Your task to perform on an android device: check out phone information Image 0: 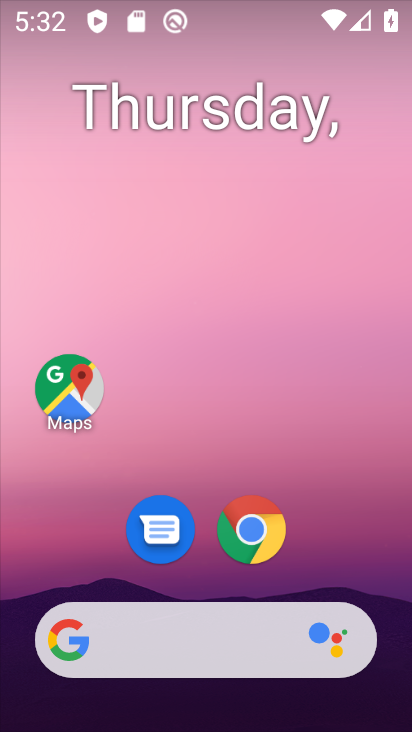
Step 0: drag from (363, 575) to (296, 45)
Your task to perform on an android device: check out phone information Image 1: 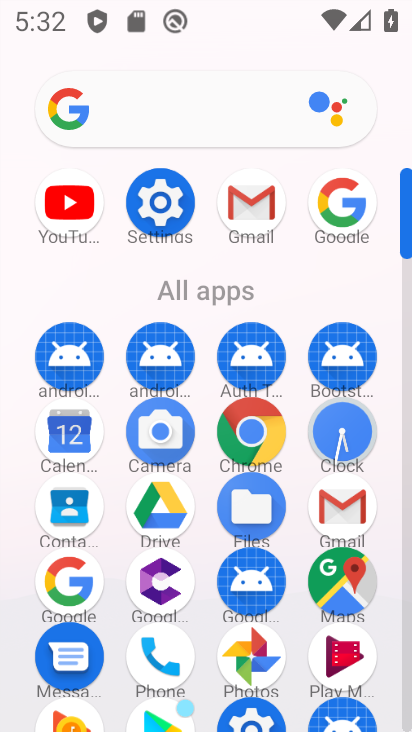
Step 1: click (160, 203)
Your task to perform on an android device: check out phone information Image 2: 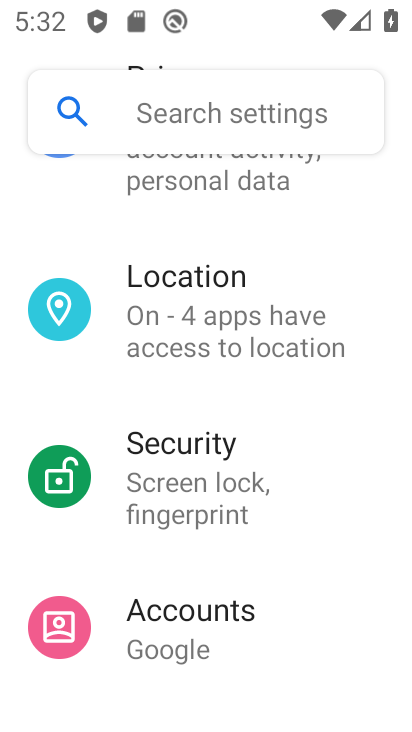
Step 2: drag from (253, 644) to (255, 380)
Your task to perform on an android device: check out phone information Image 3: 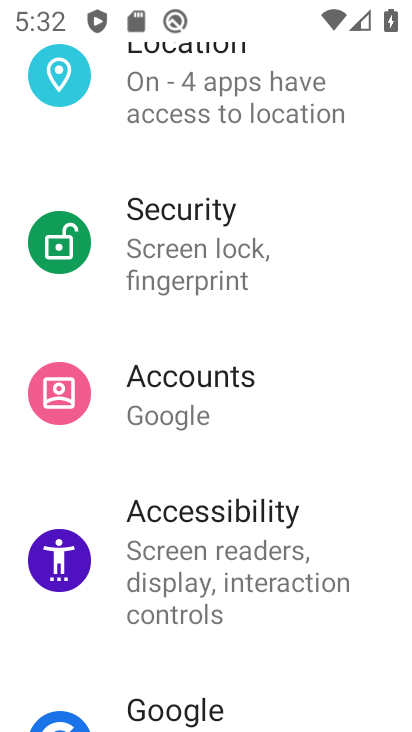
Step 3: drag from (237, 585) to (250, 401)
Your task to perform on an android device: check out phone information Image 4: 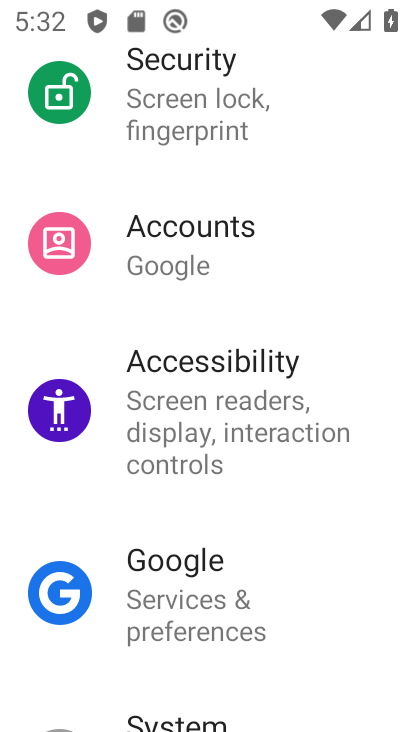
Step 4: drag from (218, 639) to (259, 469)
Your task to perform on an android device: check out phone information Image 5: 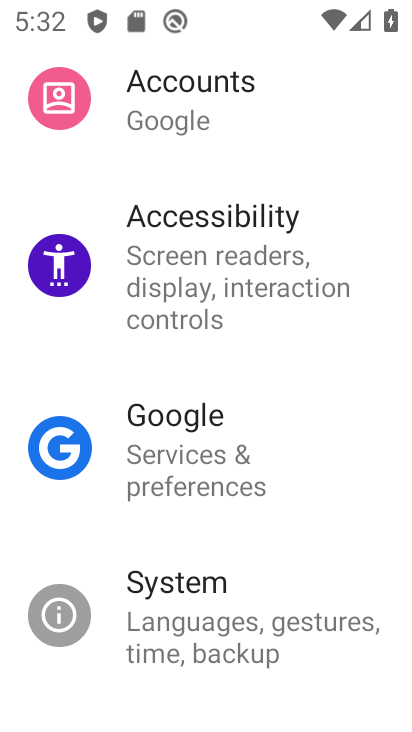
Step 5: drag from (254, 578) to (294, 397)
Your task to perform on an android device: check out phone information Image 6: 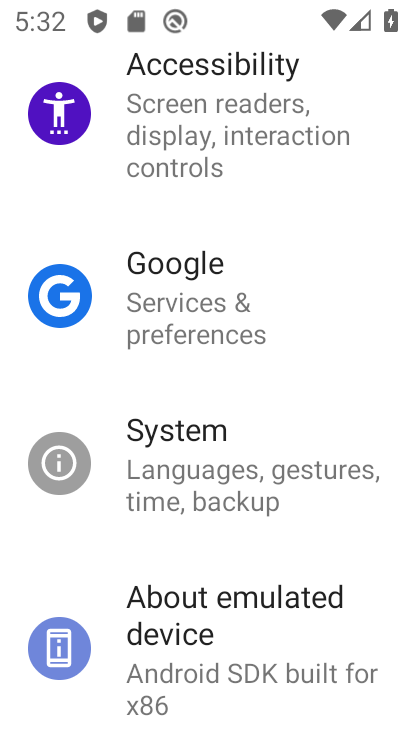
Step 6: drag from (245, 569) to (255, 389)
Your task to perform on an android device: check out phone information Image 7: 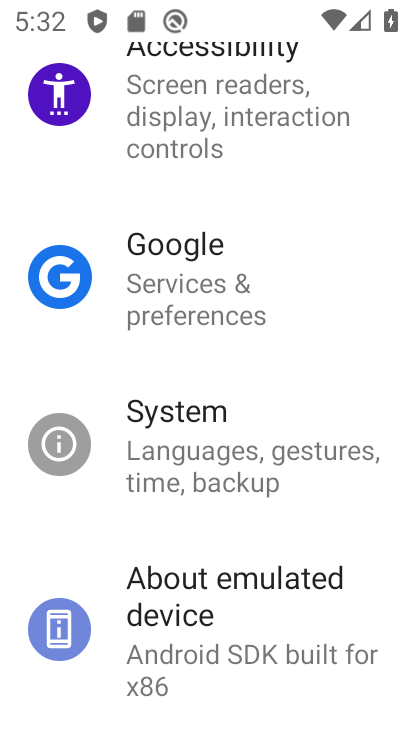
Step 7: click (229, 578)
Your task to perform on an android device: check out phone information Image 8: 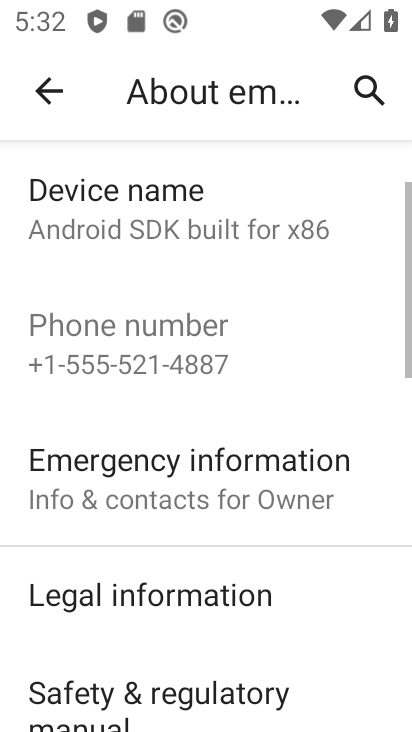
Step 8: task complete